Your task to perform on an android device: Search for a new desk on IKEA. Image 0: 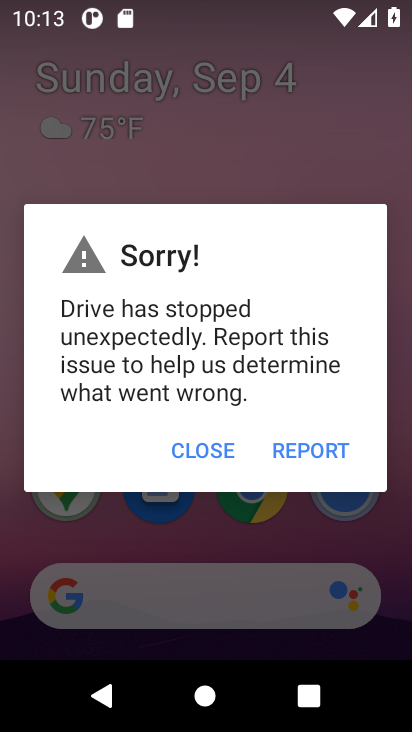
Step 0: click (211, 454)
Your task to perform on an android device: Search for a new desk on IKEA. Image 1: 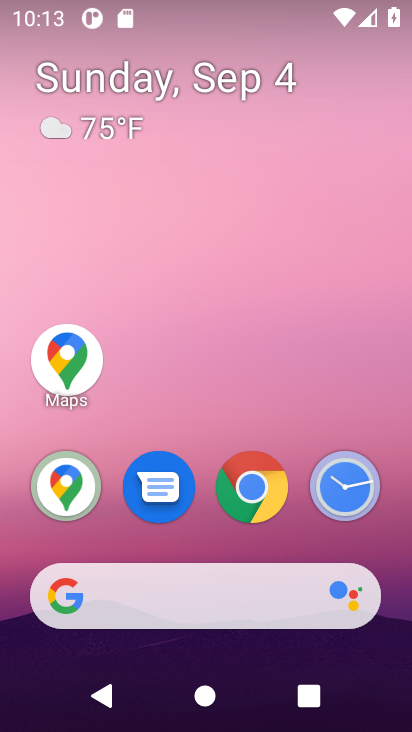
Step 1: task complete